Your task to perform on an android device: Search for Italian restaurants on Maps Image 0: 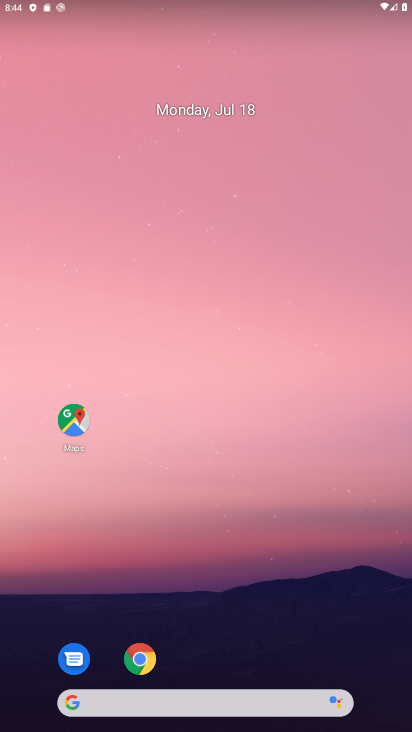
Step 0: drag from (342, 663) to (311, 79)
Your task to perform on an android device: Search for Italian restaurants on Maps Image 1: 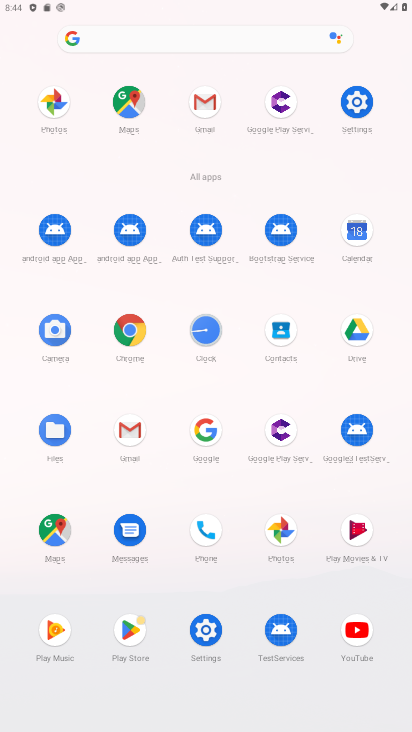
Step 1: click (47, 528)
Your task to perform on an android device: Search for Italian restaurants on Maps Image 2: 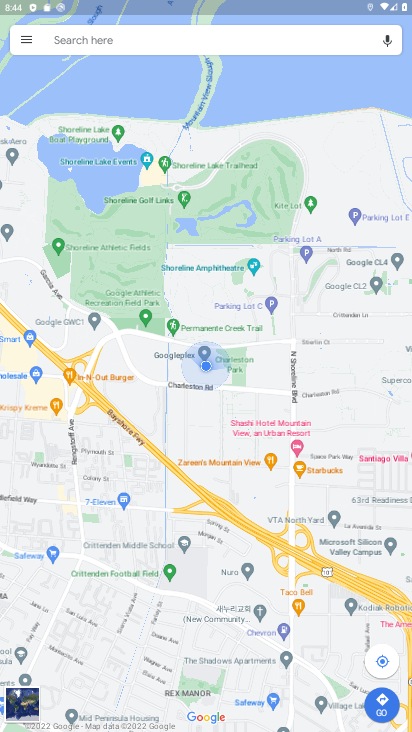
Step 2: click (206, 42)
Your task to perform on an android device: Search for Italian restaurants on Maps Image 3: 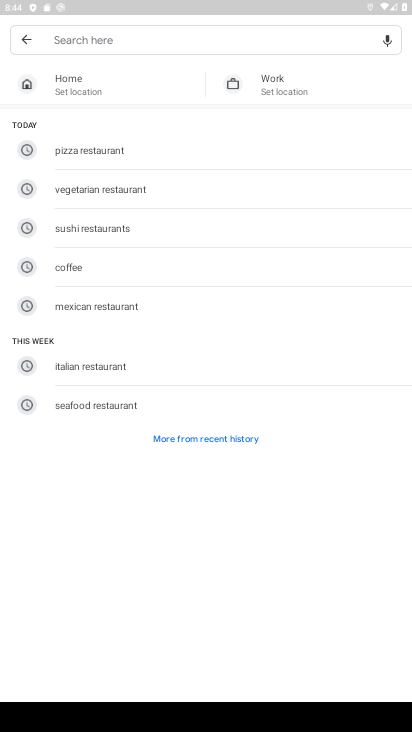
Step 3: click (130, 361)
Your task to perform on an android device: Search for Italian restaurants on Maps Image 4: 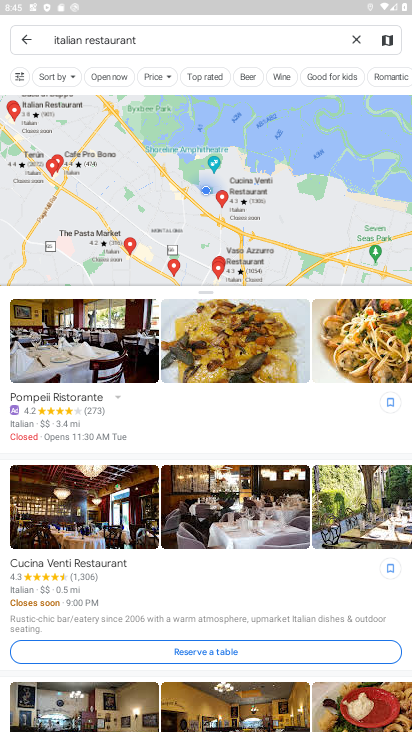
Step 4: task complete